Your task to perform on an android device: Open Chrome and go to the settings page Image 0: 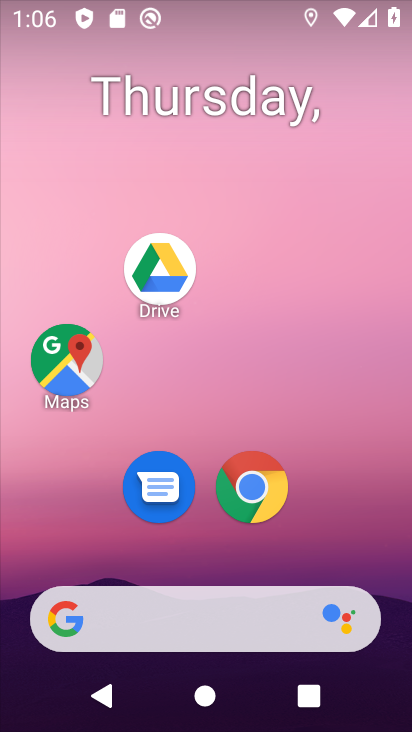
Step 0: click (257, 486)
Your task to perform on an android device: Open Chrome and go to the settings page Image 1: 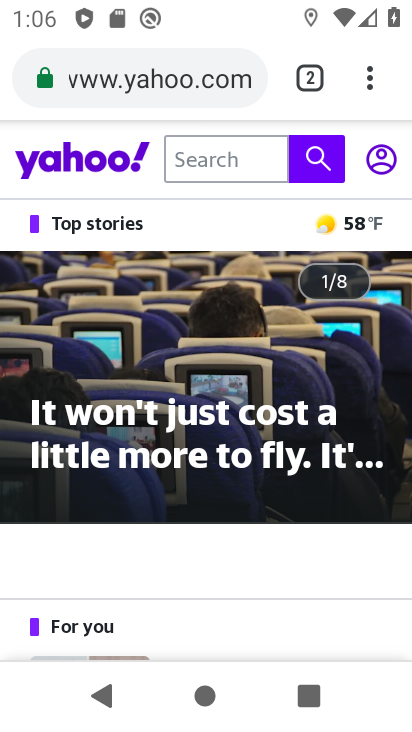
Step 1: click (371, 76)
Your task to perform on an android device: Open Chrome and go to the settings page Image 2: 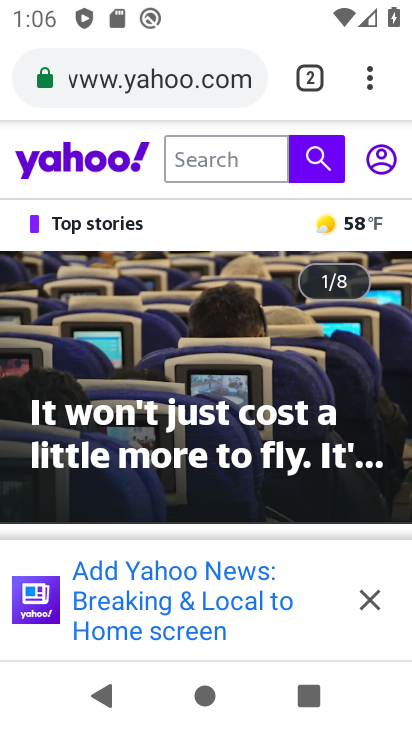
Step 2: task complete